Your task to perform on an android device: turn on location history Image 0: 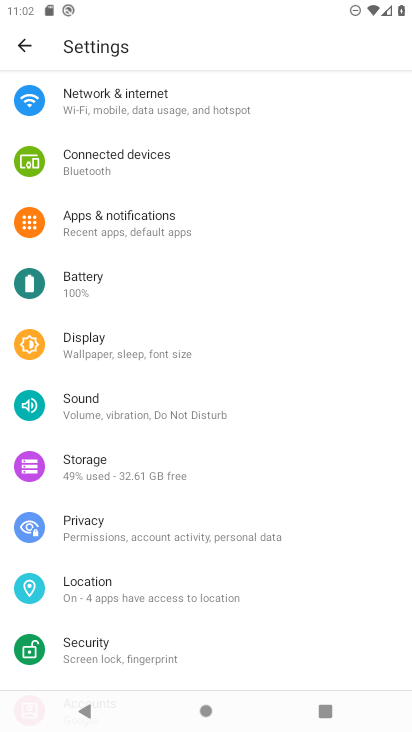
Step 0: press home button
Your task to perform on an android device: turn on location history Image 1: 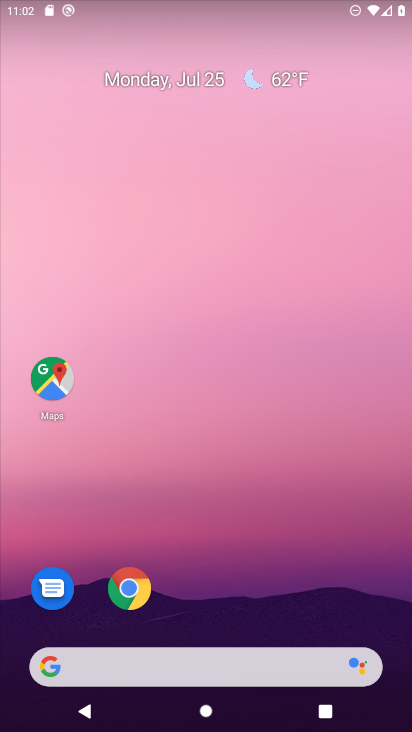
Step 1: drag from (44, 610) to (213, 165)
Your task to perform on an android device: turn on location history Image 2: 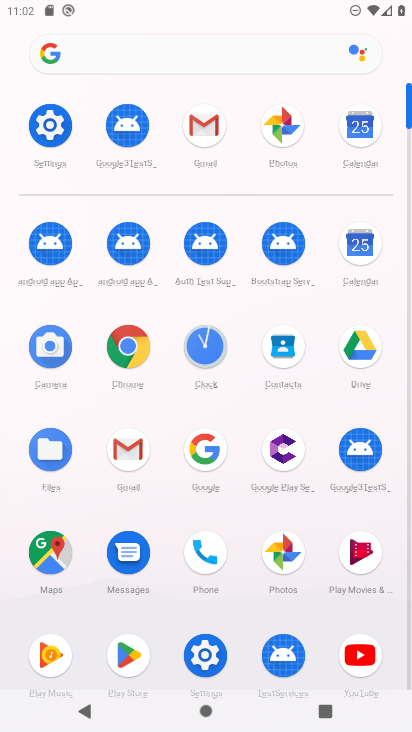
Step 2: click (49, 120)
Your task to perform on an android device: turn on location history Image 3: 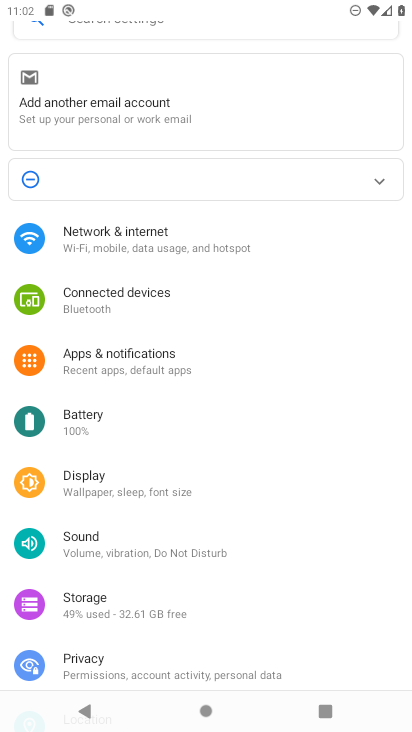
Step 3: drag from (65, 665) to (163, 233)
Your task to perform on an android device: turn on location history Image 4: 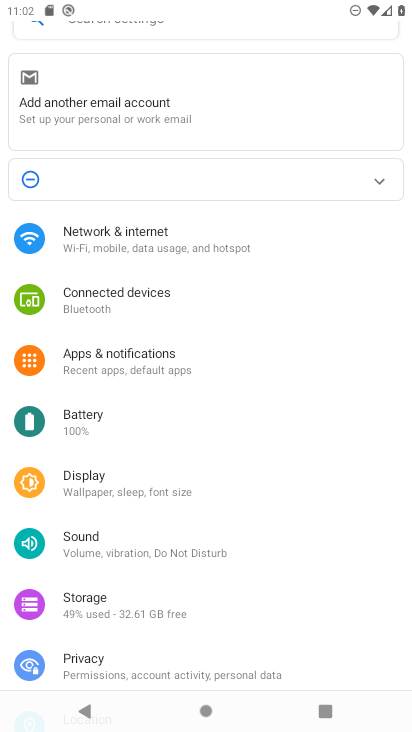
Step 4: drag from (12, 459) to (139, 162)
Your task to perform on an android device: turn on location history Image 5: 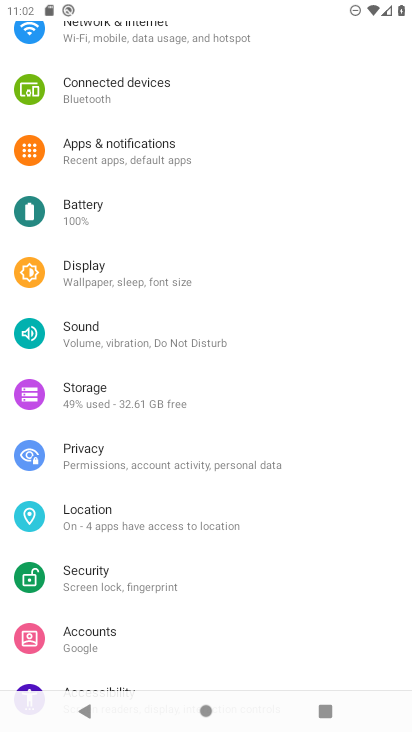
Step 5: click (117, 522)
Your task to perform on an android device: turn on location history Image 6: 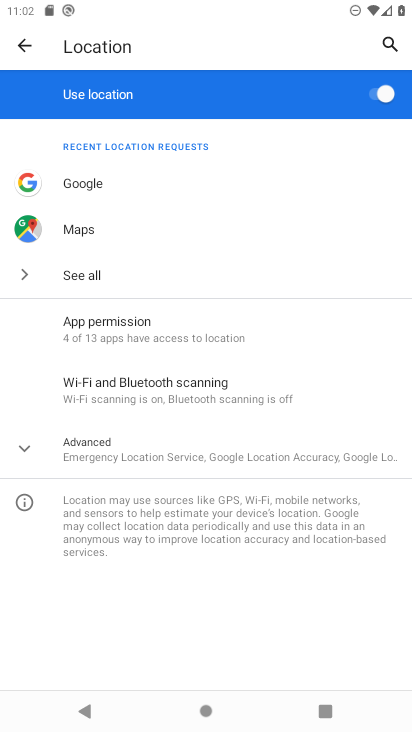
Step 6: click (140, 449)
Your task to perform on an android device: turn on location history Image 7: 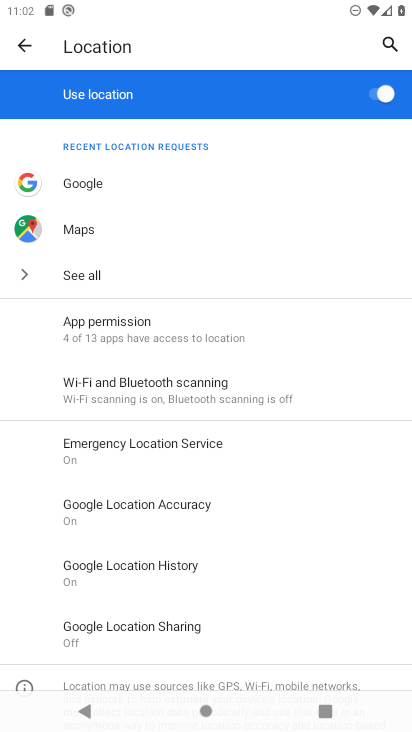
Step 7: click (190, 576)
Your task to perform on an android device: turn on location history Image 8: 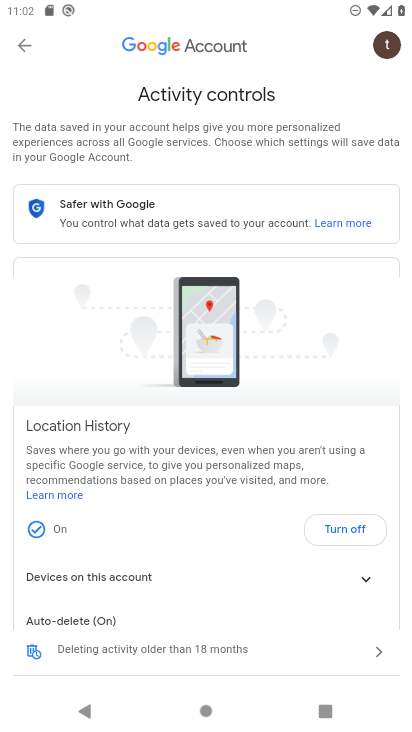
Step 8: click (350, 531)
Your task to perform on an android device: turn on location history Image 9: 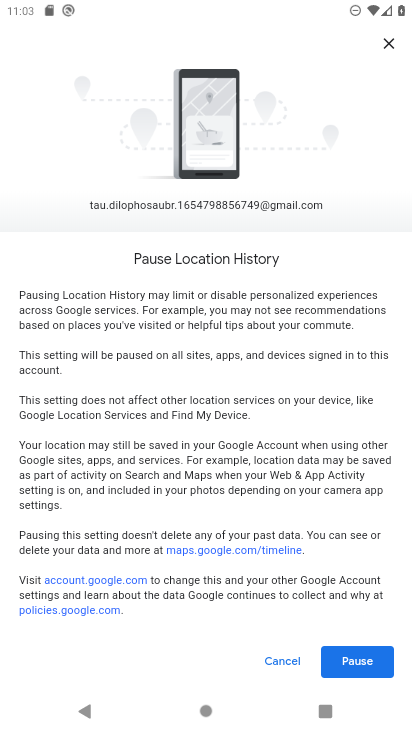
Step 9: click (373, 657)
Your task to perform on an android device: turn on location history Image 10: 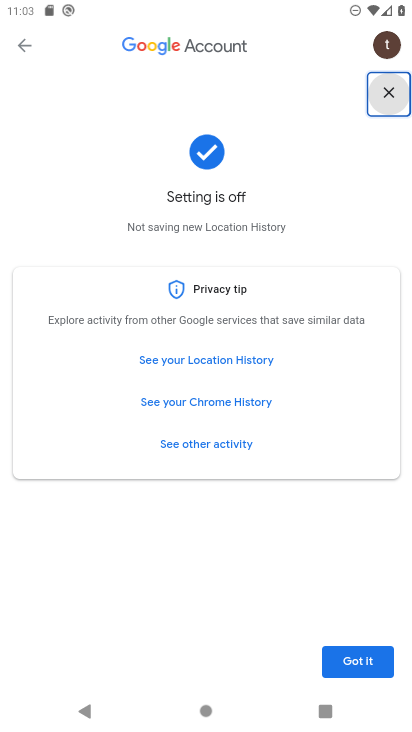
Step 10: click (369, 659)
Your task to perform on an android device: turn on location history Image 11: 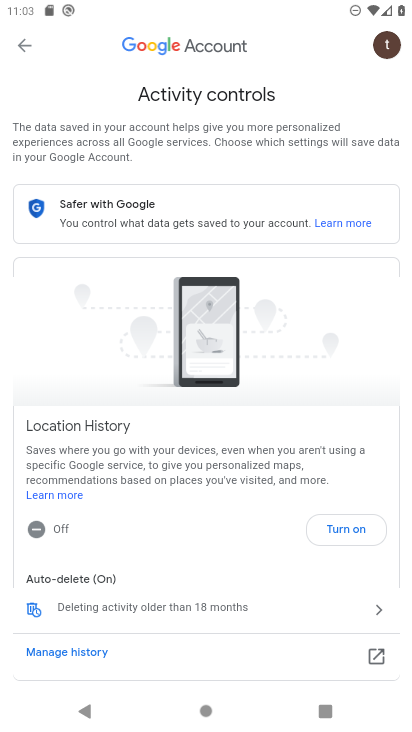
Step 11: task complete